Your task to perform on an android device: Show me popular games on the Play Store Image 0: 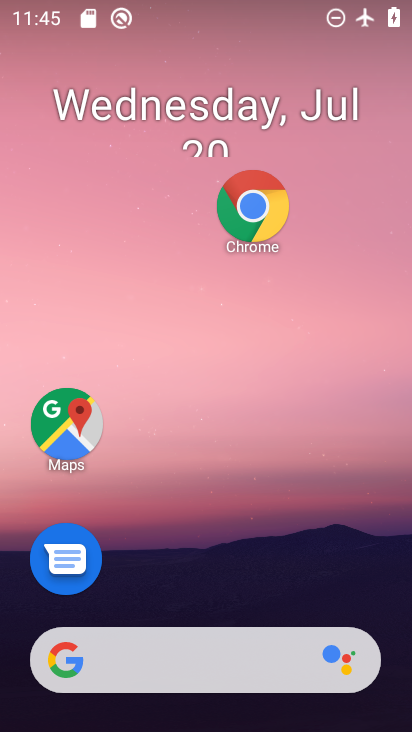
Step 0: drag from (190, 529) to (230, 218)
Your task to perform on an android device: Show me popular games on the Play Store Image 1: 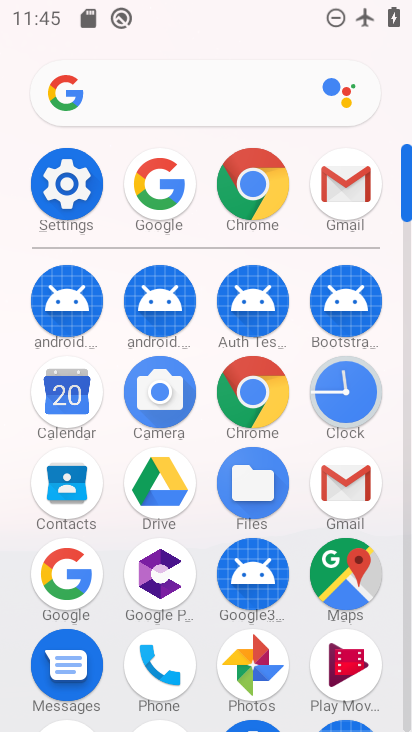
Step 1: drag from (259, 515) to (258, 250)
Your task to perform on an android device: Show me popular games on the Play Store Image 2: 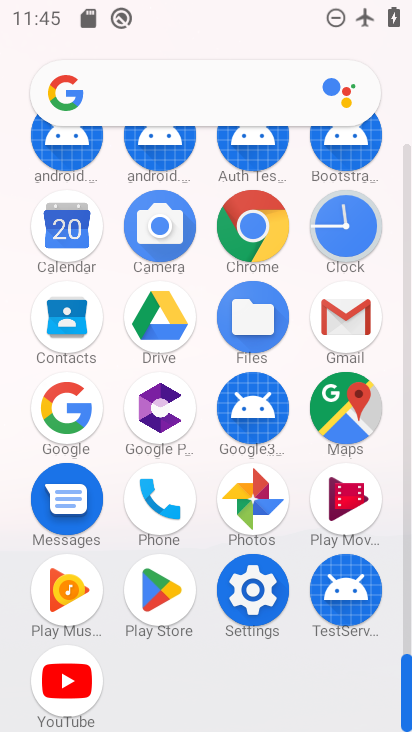
Step 2: drag from (188, 454) to (241, 287)
Your task to perform on an android device: Show me popular games on the Play Store Image 3: 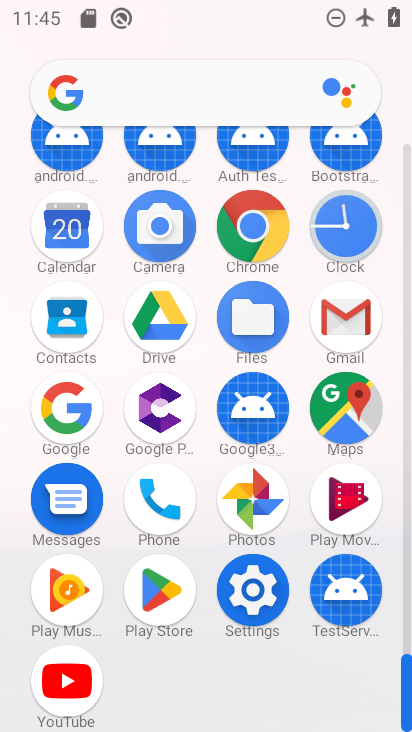
Step 3: click (169, 605)
Your task to perform on an android device: Show me popular games on the Play Store Image 4: 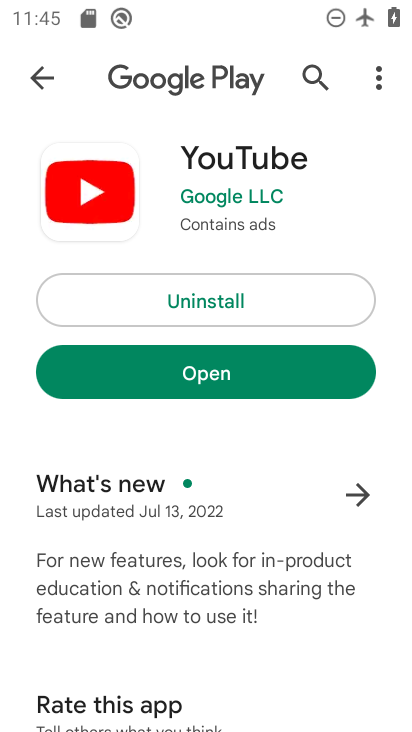
Step 4: click (44, 91)
Your task to perform on an android device: Show me popular games on the Play Store Image 5: 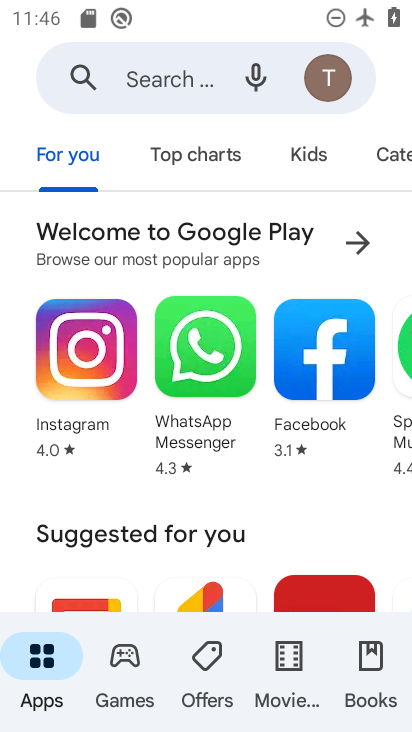
Step 5: task complete